Your task to perform on an android device: What's the weather? Image 0: 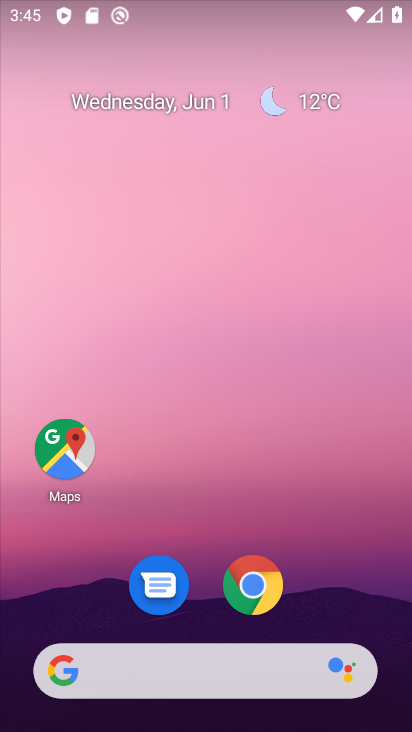
Step 0: click (304, 102)
Your task to perform on an android device: What's the weather? Image 1: 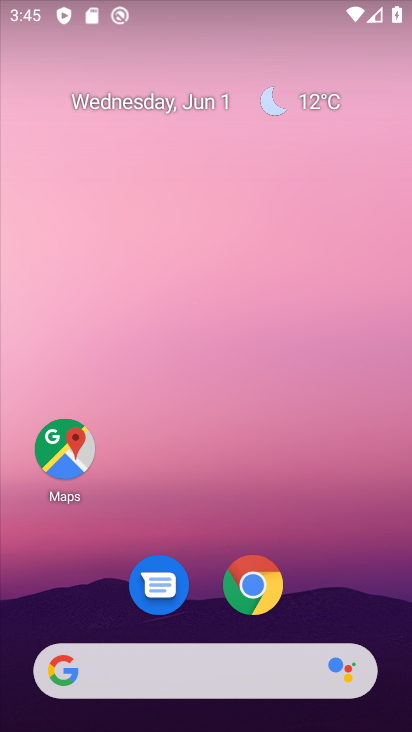
Step 1: click (304, 101)
Your task to perform on an android device: What's the weather? Image 2: 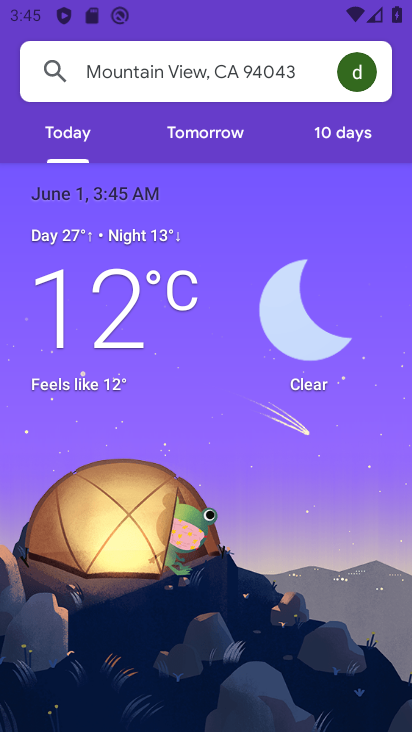
Step 2: task complete